Your task to perform on an android device: See recent photos Image 0: 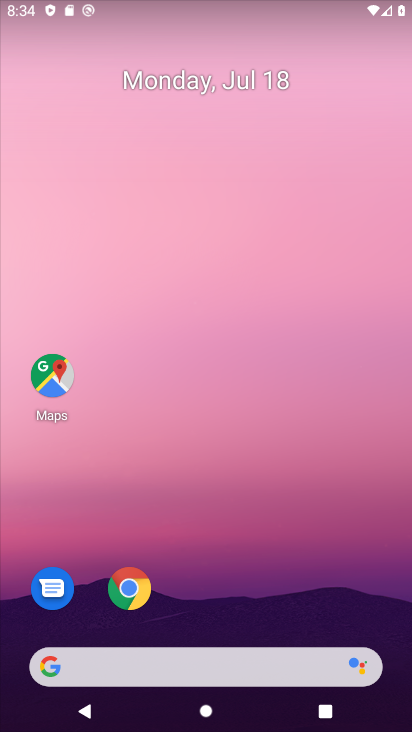
Step 0: drag from (206, 498) to (157, 28)
Your task to perform on an android device: See recent photos Image 1: 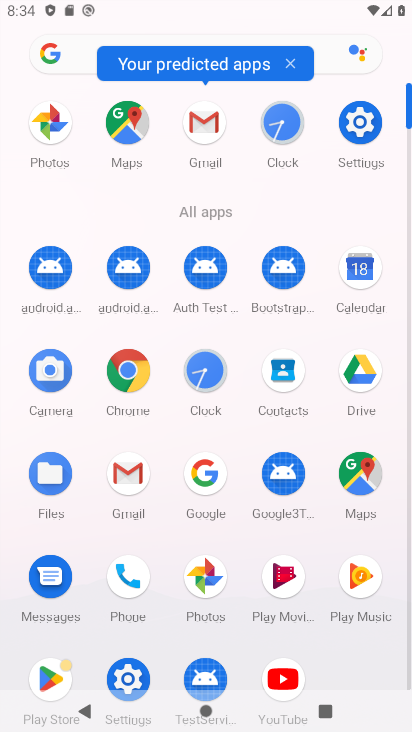
Step 1: click (365, 125)
Your task to perform on an android device: See recent photos Image 2: 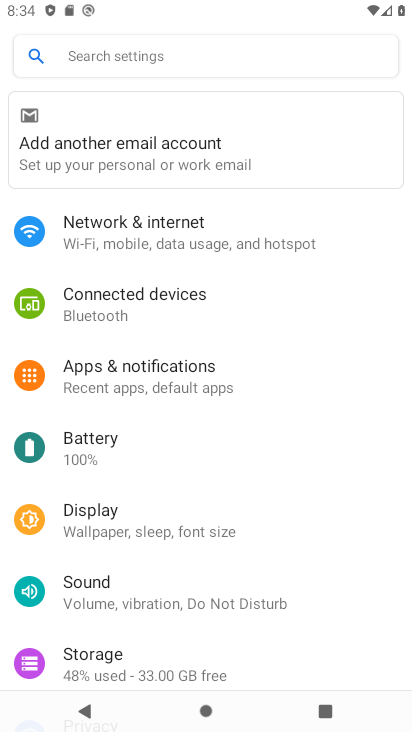
Step 2: click (133, 525)
Your task to perform on an android device: See recent photos Image 3: 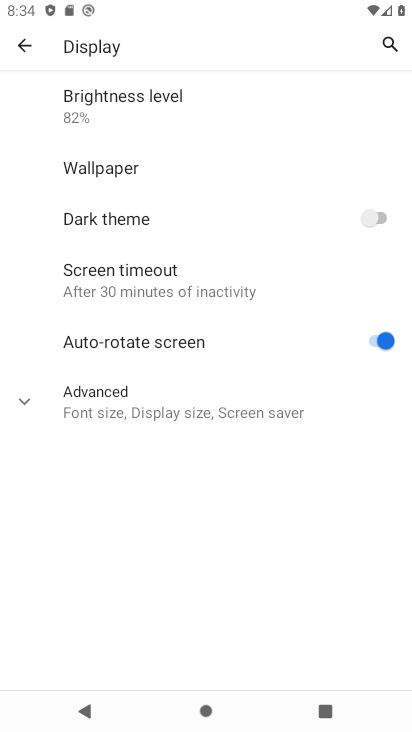
Step 3: click (169, 403)
Your task to perform on an android device: See recent photos Image 4: 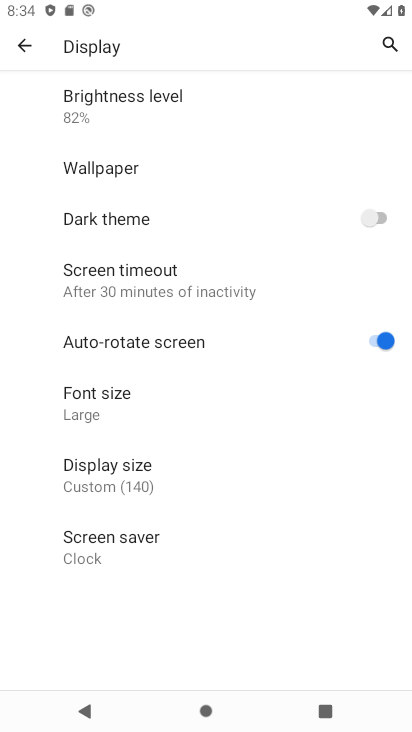
Step 4: click (102, 462)
Your task to perform on an android device: See recent photos Image 5: 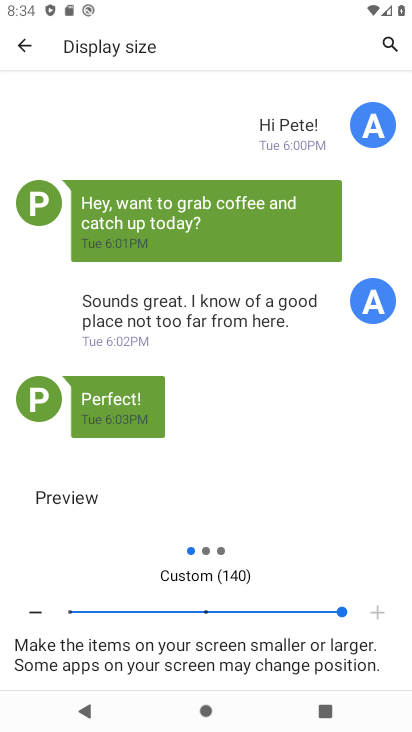
Step 5: click (206, 616)
Your task to perform on an android device: See recent photos Image 6: 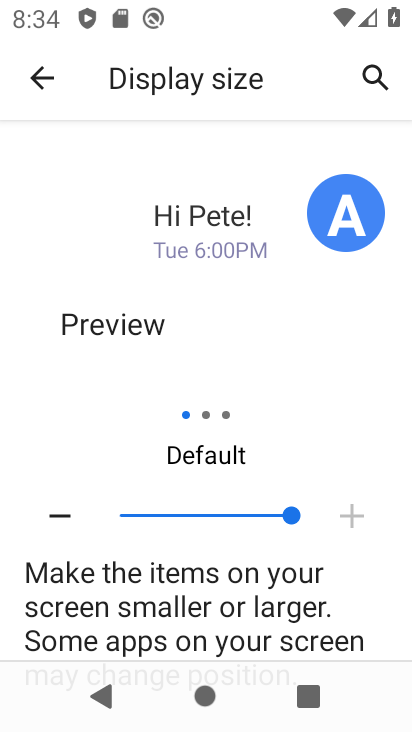
Step 6: click (43, 76)
Your task to perform on an android device: See recent photos Image 7: 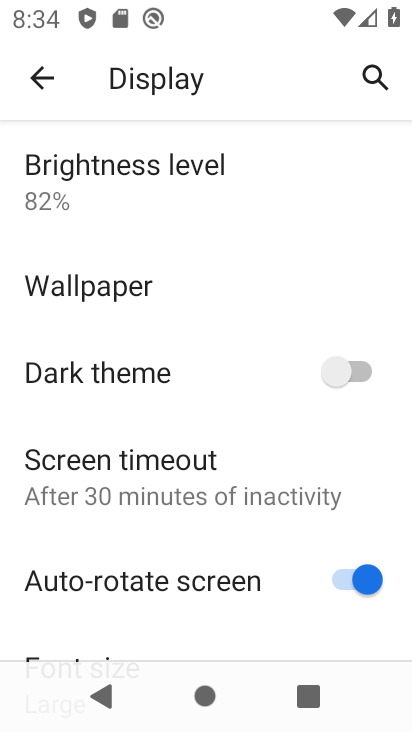
Step 7: press back button
Your task to perform on an android device: See recent photos Image 8: 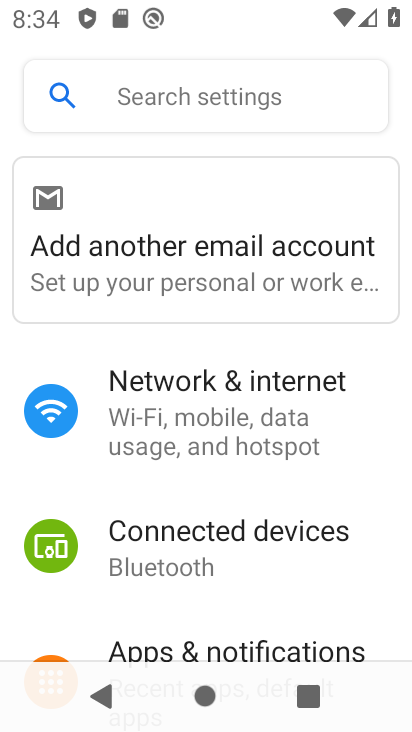
Step 8: press back button
Your task to perform on an android device: See recent photos Image 9: 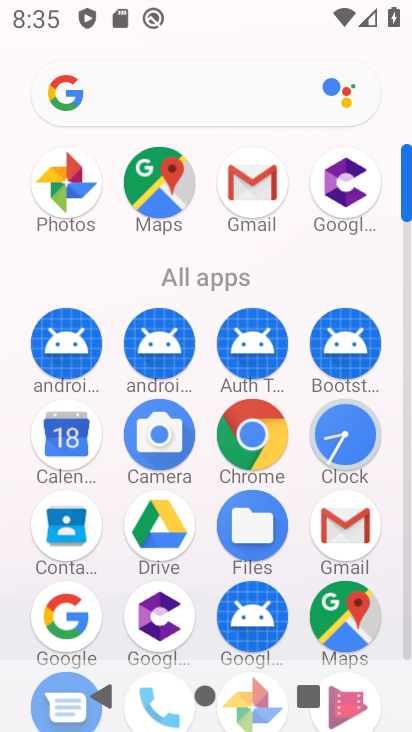
Step 9: click (63, 182)
Your task to perform on an android device: See recent photos Image 10: 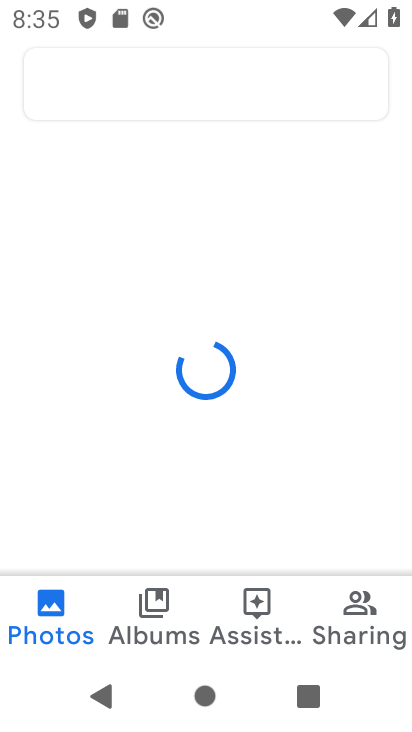
Step 10: click (62, 608)
Your task to perform on an android device: See recent photos Image 11: 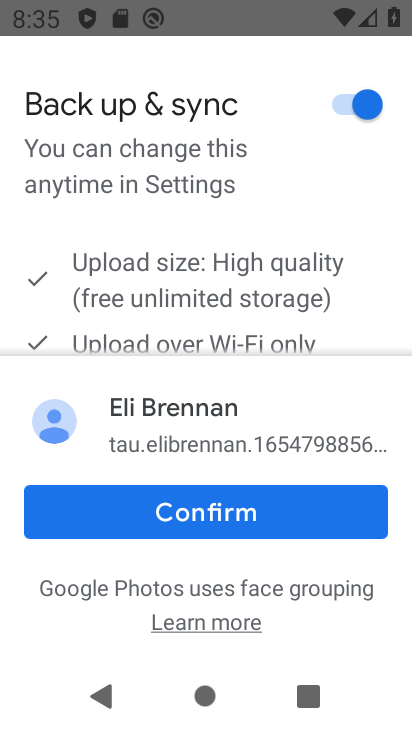
Step 11: click (208, 509)
Your task to perform on an android device: See recent photos Image 12: 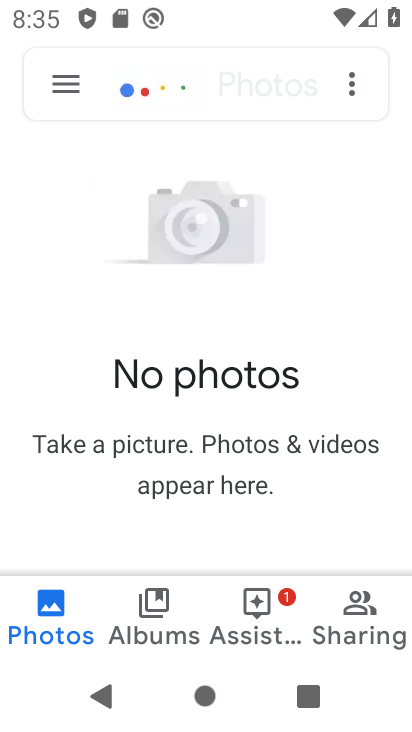
Step 12: click (61, 610)
Your task to perform on an android device: See recent photos Image 13: 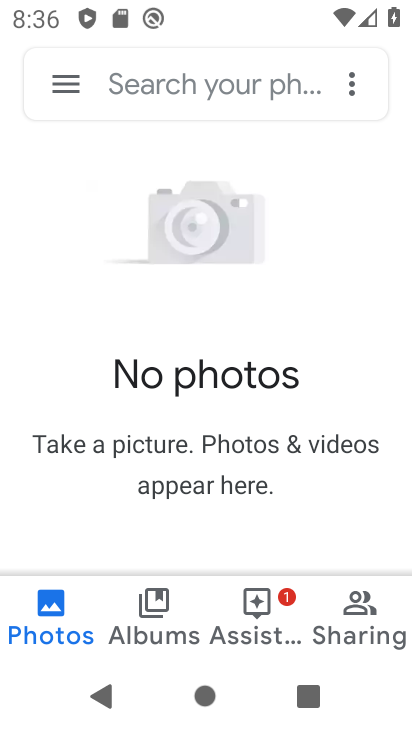
Step 13: task complete